Your task to perform on an android device: change notifications settings Image 0: 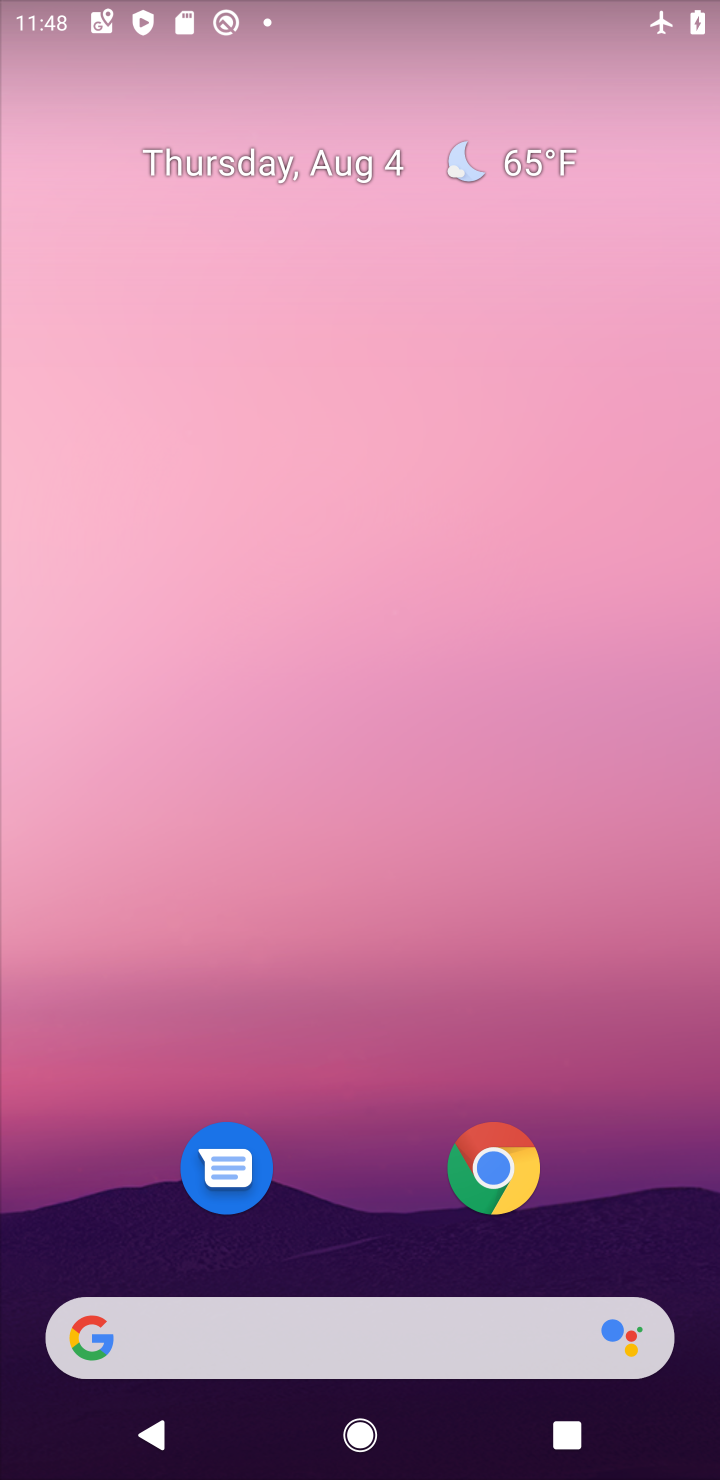
Step 0: drag from (455, 447) to (332, 2)
Your task to perform on an android device: change notifications settings Image 1: 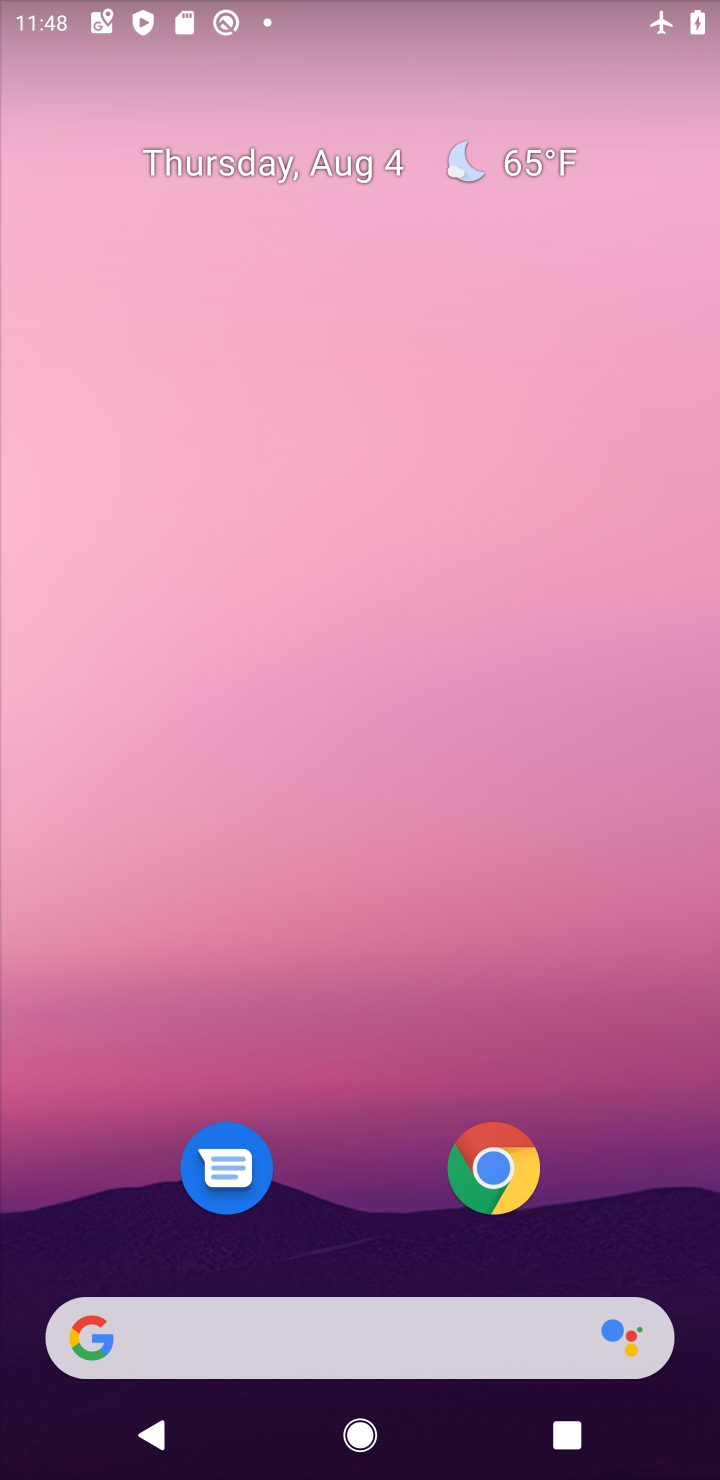
Step 1: drag from (628, 1283) to (485, 21)
Your task to perform on an android device: change notifications settings Image 2: 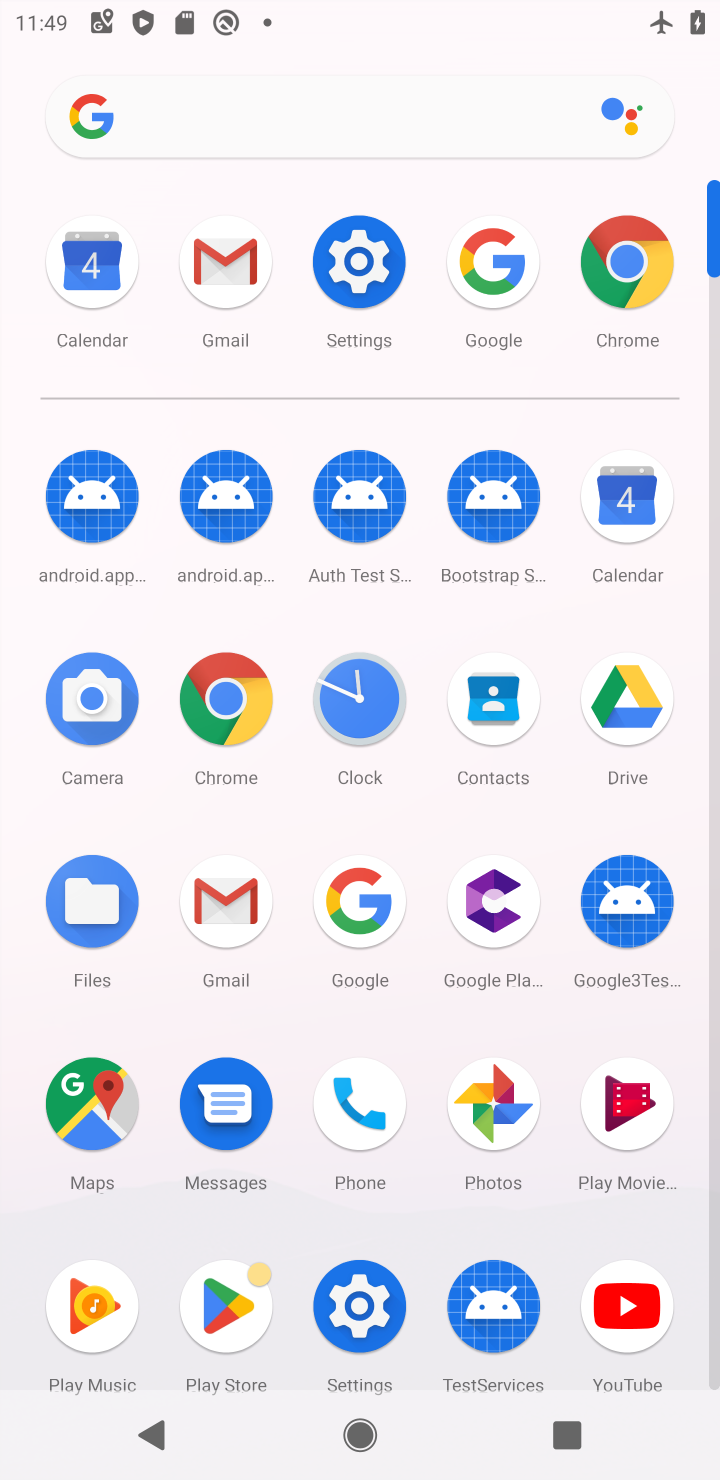
Step 2: click (360, 286)
Your task to perform on an android device: change notifications settings Image 3: 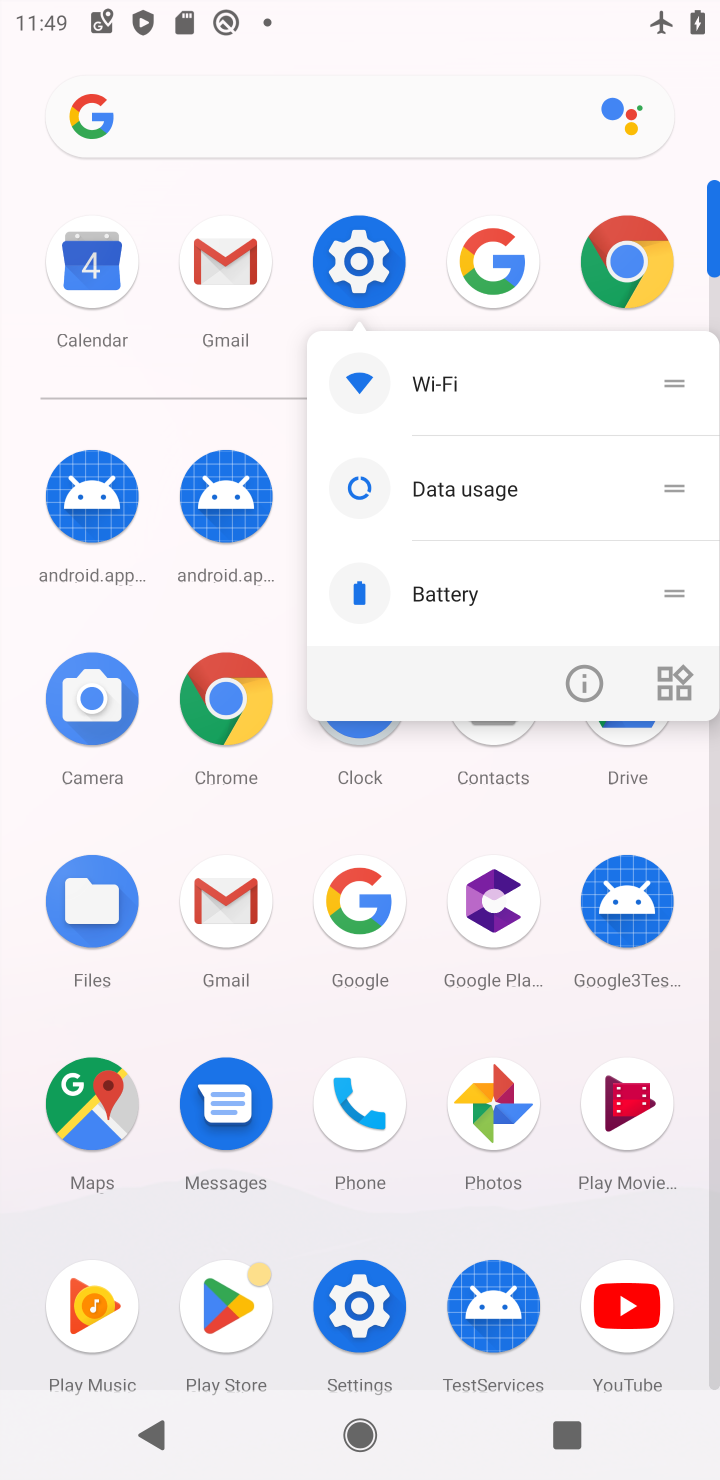
Step 3: click (360, 286)
Your task to perform on an android device: change notifications settings Image 4: 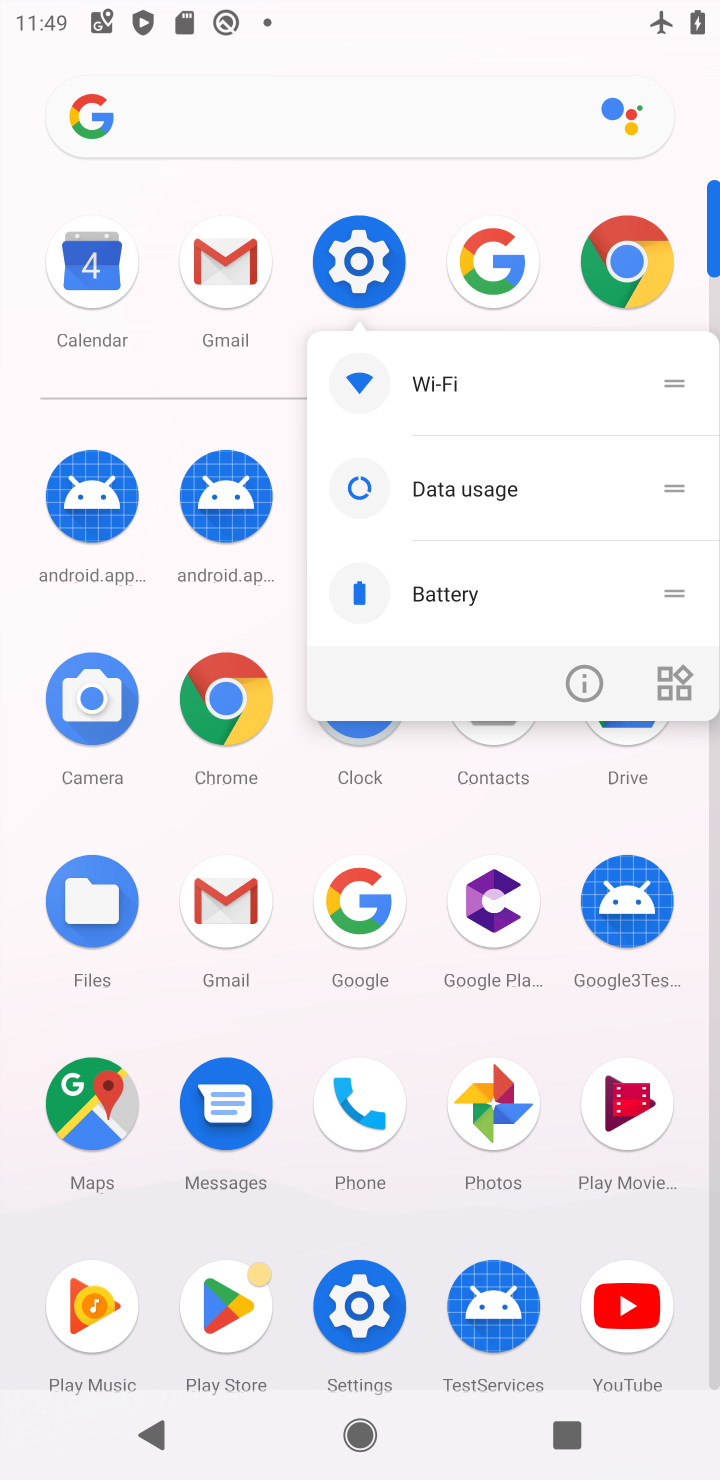
Step 4: click (360, 286)
Your task to perform on an android device: change notifications settings Image 5: 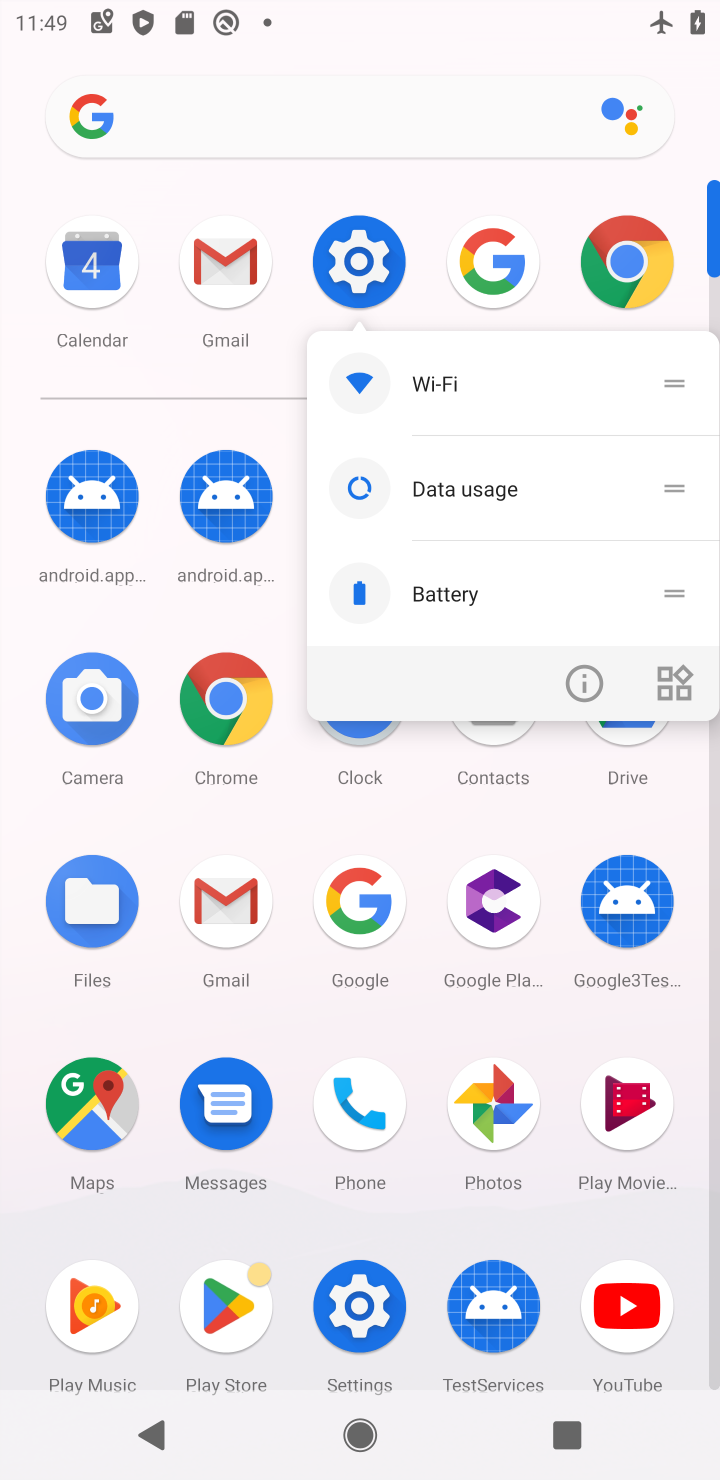
Step 5: click (386, 296)
Your task to perform on an android device: change notifications settings Image 6: 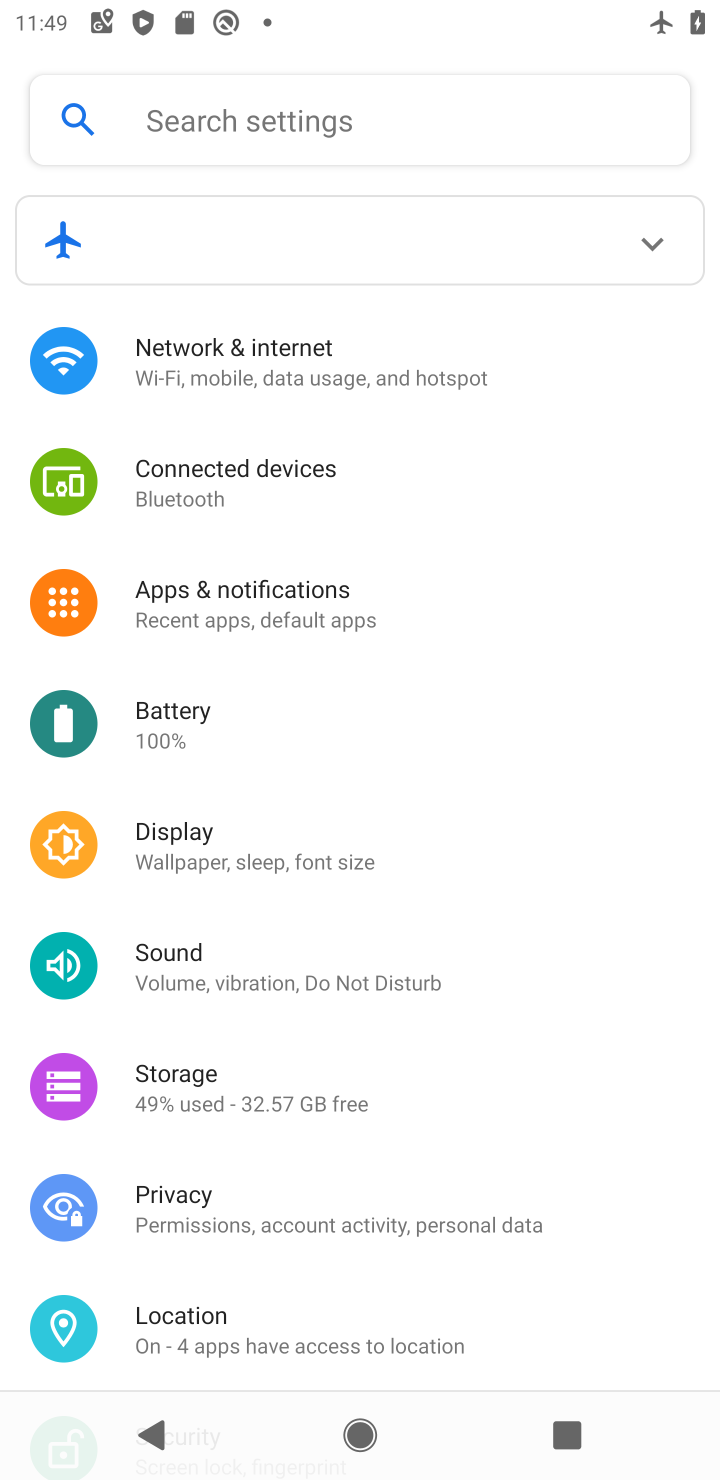
Step 6: task complete